Your task to perform on an android device: What's the weather? Image 0: 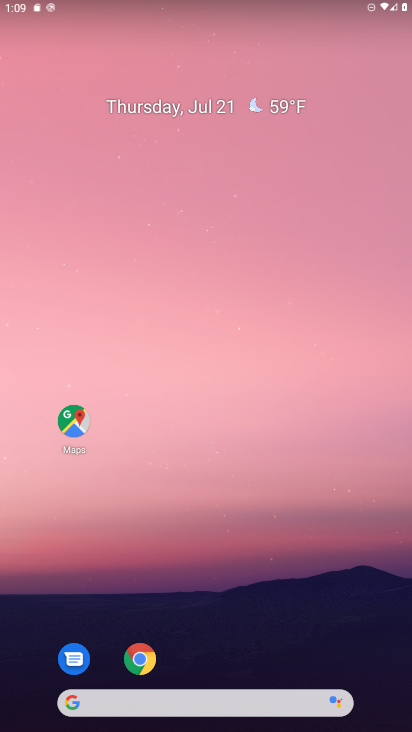
Step 0: press home button
Your task to perform on an android device: What's the weather? Image 1: 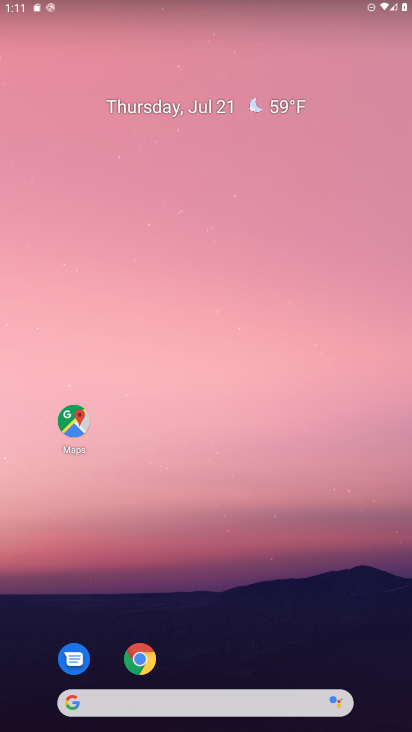
Step 1: click (244, 708)
Your task to perform on an android device: What's the weather? Image 2: 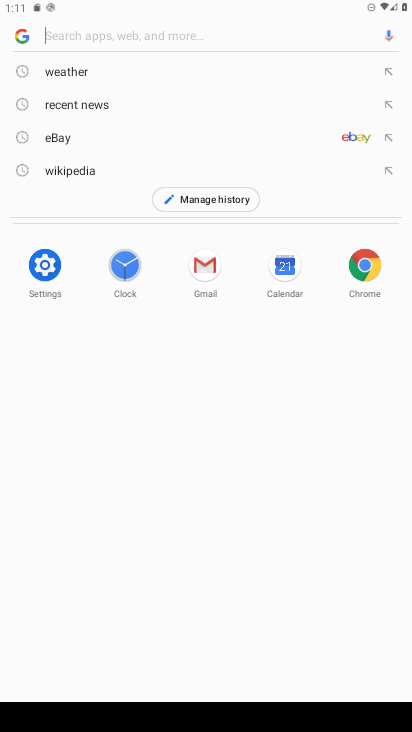
Step 2: click (51, 77)
Your task to perform on an android device: What's the weather? Image 3: 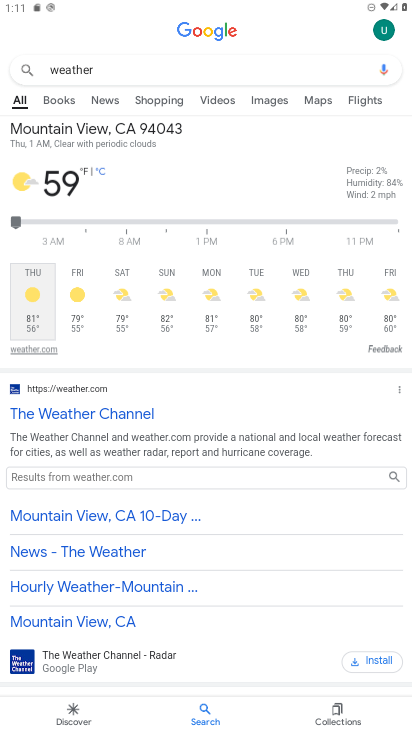
Step 3: task complete